Your task to perform on an android device: move an email to a new category in the gmail app Image 0: 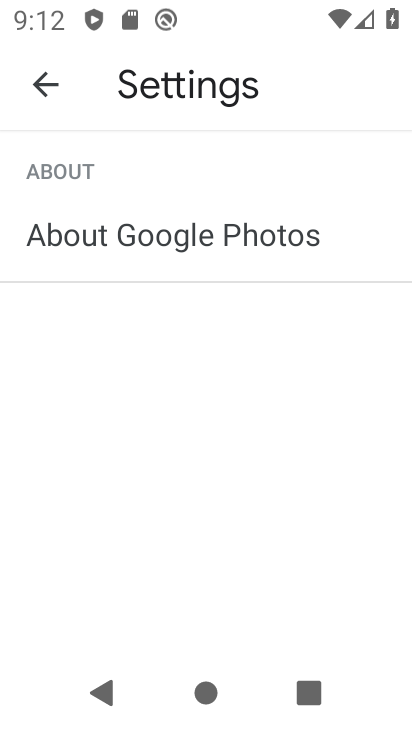
Step 0: press home button
Your task to perform on an android device: move an email to a new category in the gmail app Image 1: 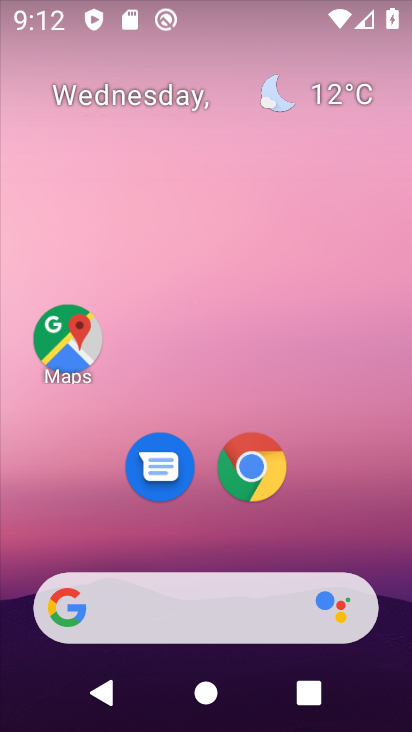
Step 1: drag from (361, 536) to (354, 199)
Your task to perform on an android device: move an email to a new category in the gmail app Image 2: 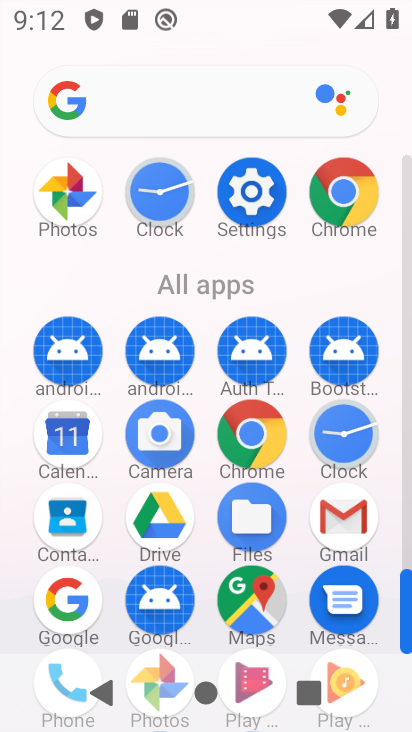
Step 2: click (362, 526)
Your task to perform on an android device: move an email to a new category in the gmail app Image 3: 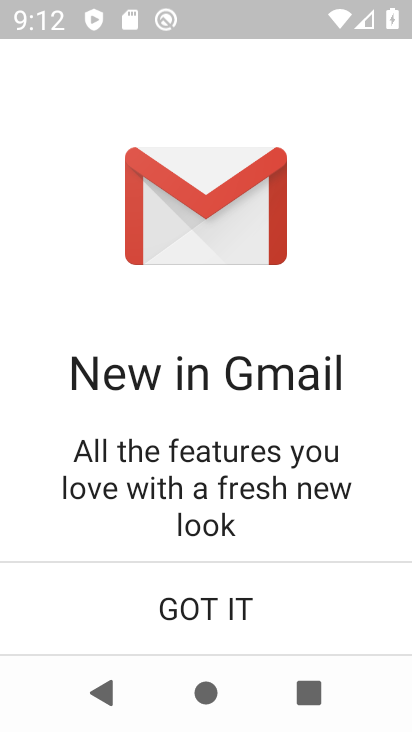
Step 3: click (206, 602)
Your task to perform on an android device: move an email to a new category in the gmail app Image 4: 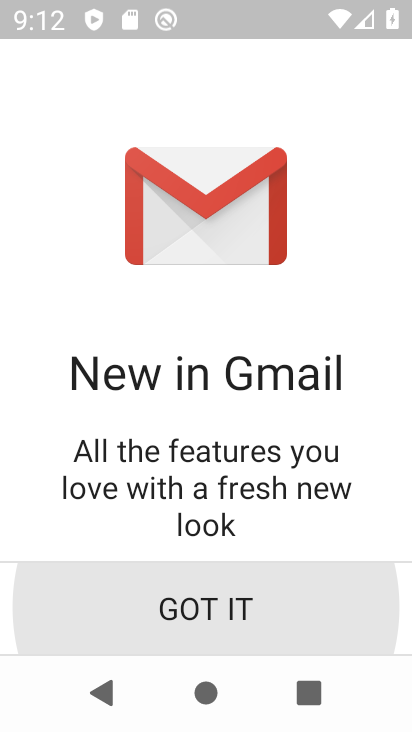
Step 4: click (206, 602)
Your task to perform on an android device: move an email to a new category in the gmail app Image 5: 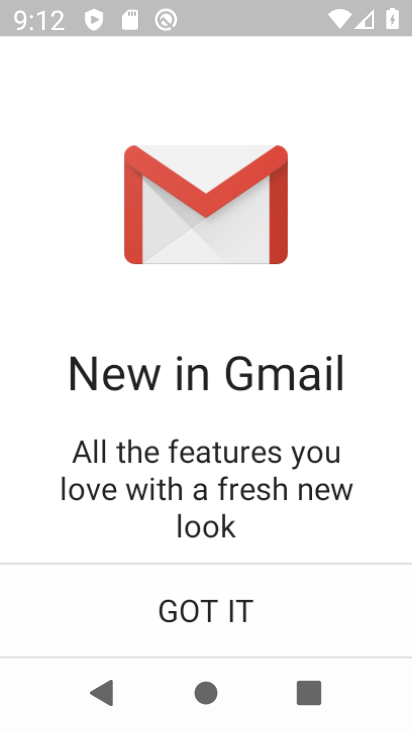
Step 5: click (206, 602)
Your task to perform on an android device: move an email to a new category in the gmail app Image 6: 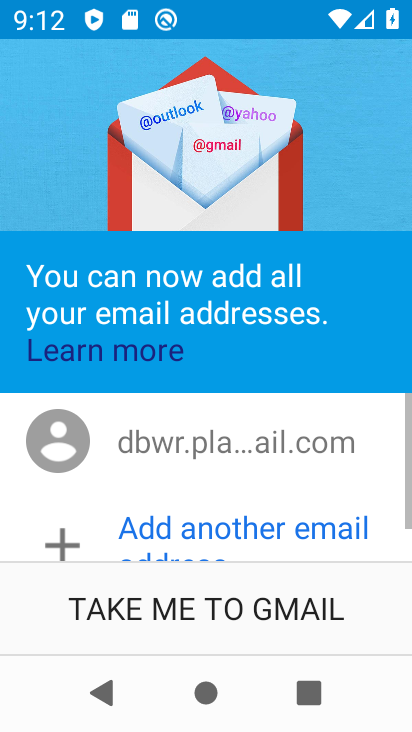
Step 6: click (206, 602)
Your task to perform on an android device: move an email to a new category in the gmail app Image 7: 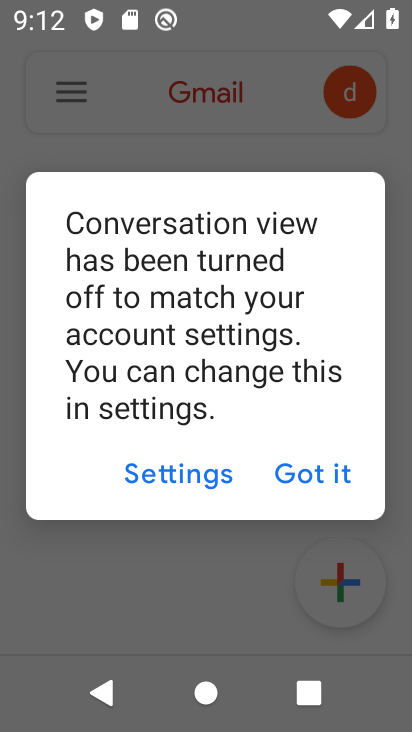
Step 7: click (336, 483)
Your task to perform on an android device: move an email to a new category in the gmail app Image 8: 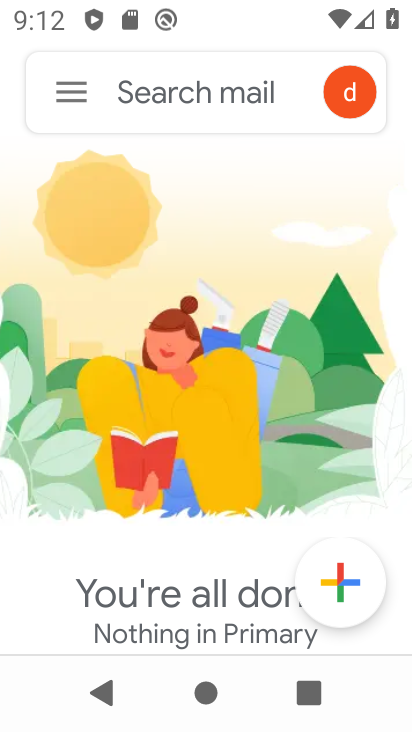
Step 8: click (65, 80)
Your task to perform on an android device: move an email to a new category in the gmail app Image 9: 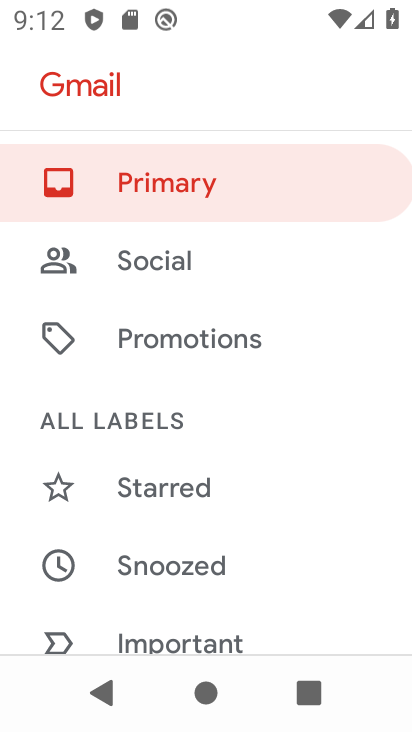
Step 9: task complete